Your task to perform on an android device: Open the Play Movies app and select the watchlist tab. Image 0: 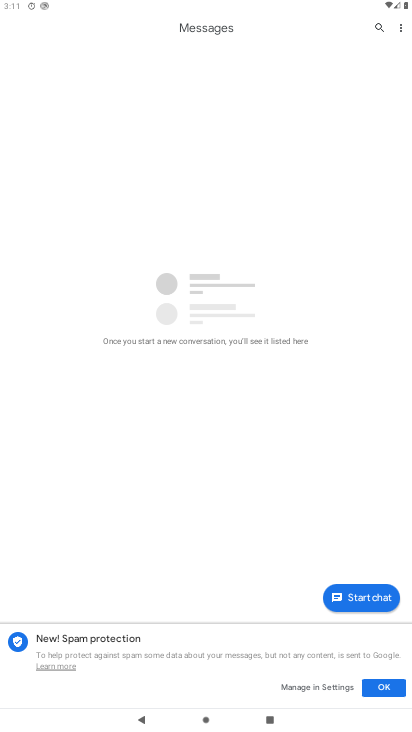
Step 0: press home button
Your task to perform on an android device: Open the Play Movies app and select the watchlist tab. Image 1: 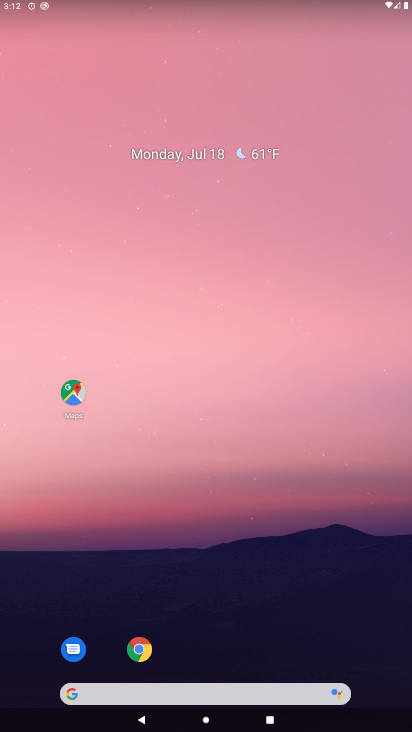
Step 1: drag from (148, 509) to (265, 175)
Your task to perform on an android device: Open the Play Movies app and select the watchlist tab. Image 2: 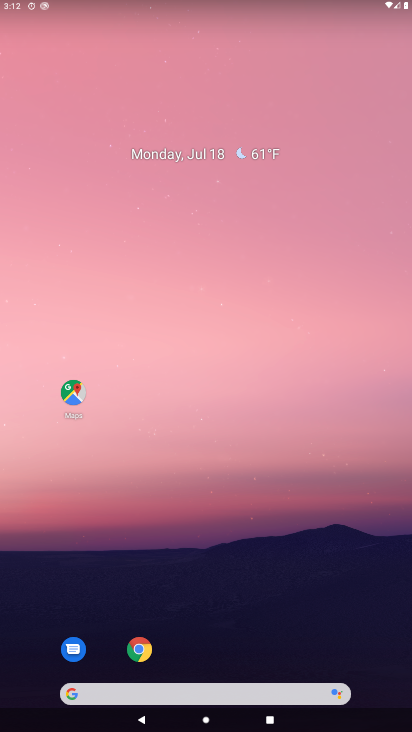
Step 2: drag from (57, 694) to (183, 221)
Your task to perform on an android device: Open the Play Movies app and select the watchlist tab. Image 3: 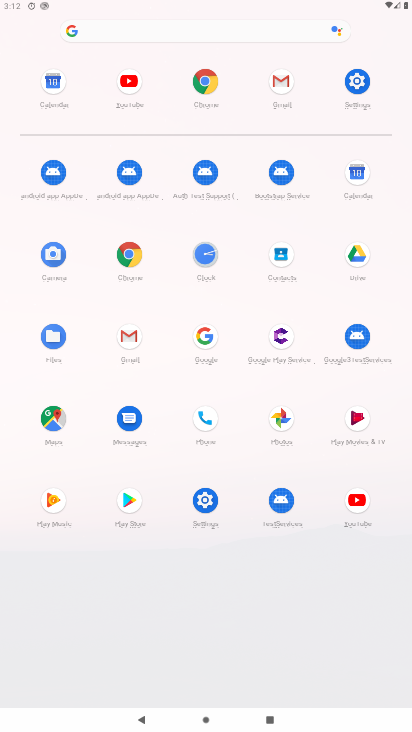
Step 3: click (353, 418)
Your task to perform on an android device: Open the Play Movies app and select the watchlist tab. Image 4: 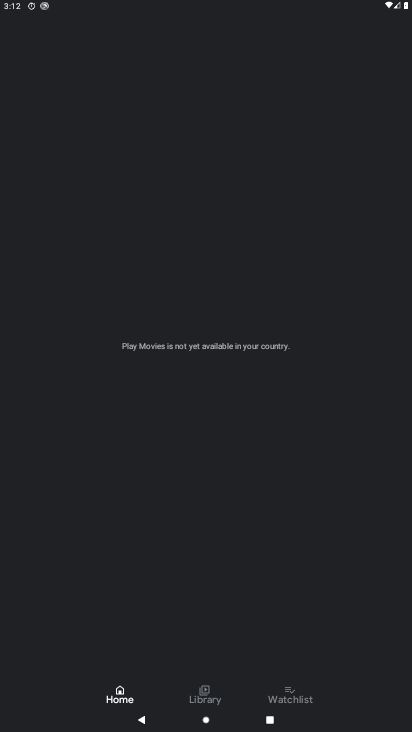
Step 4: click (279, 703)
Your task to perform on an android device: Open the Play Movies app and select the watchlist tab. Image 5: 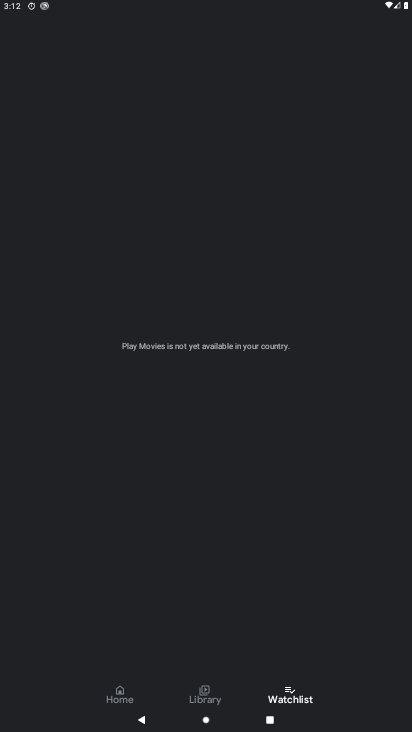
Step 5: task complete